Your task to perform on an android device: Open sound settings Image 0: 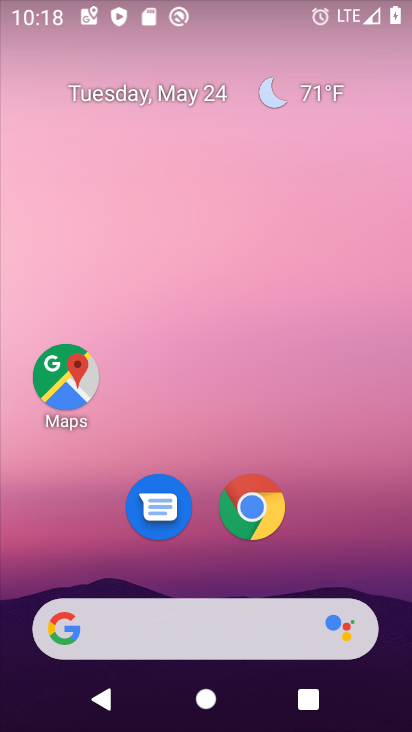
Step 0: drag from (240, 722) to (249, 103)
Your task to perform on an android device: Open sound settings Image 1: 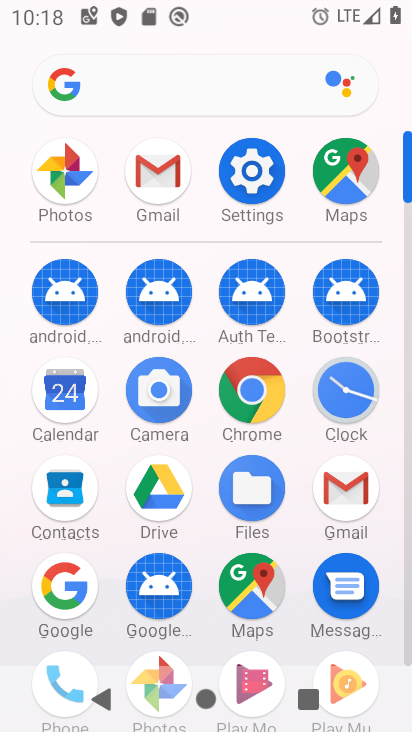
Step 1: click (250, 180)
Your task to perform on an android device: Open sound settings Image 2: 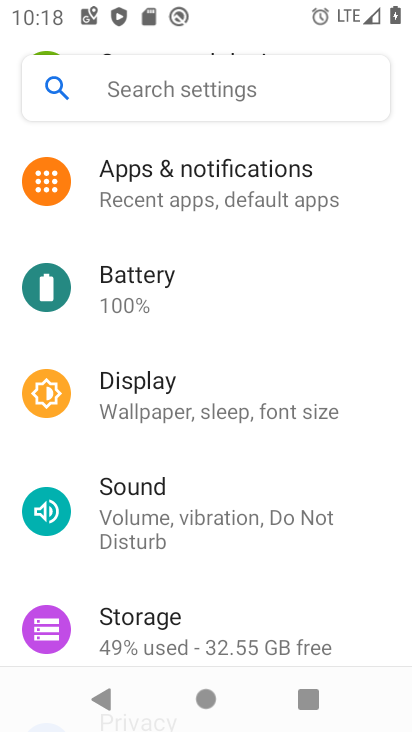
Step 2: click (144, 509)
Your task to perform on an android device: Open sound settings Image 3: 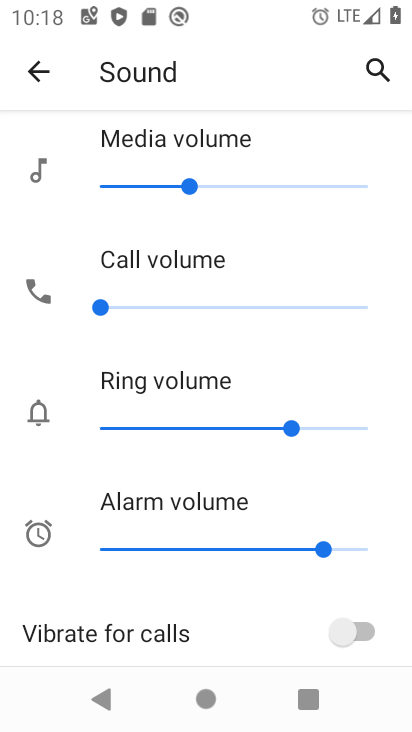
Step 3: task complete